Your task to perform on an android device: turn on bluetooth scan Image 0: 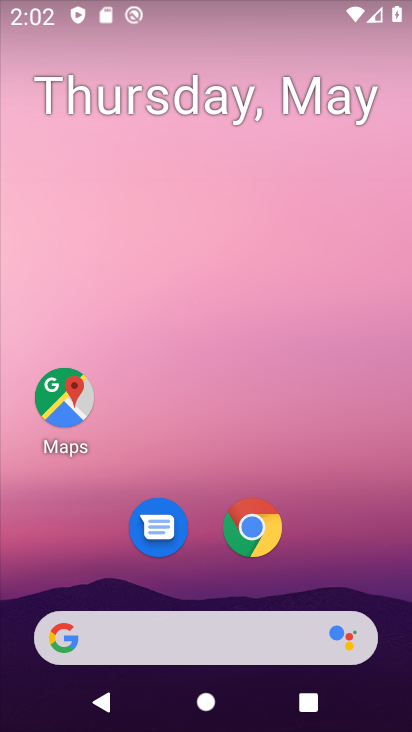
Step 0: drag from (319, 559) to (311, 121)
Your task to perform on an android device: turn on bluetooth scan Image 1: 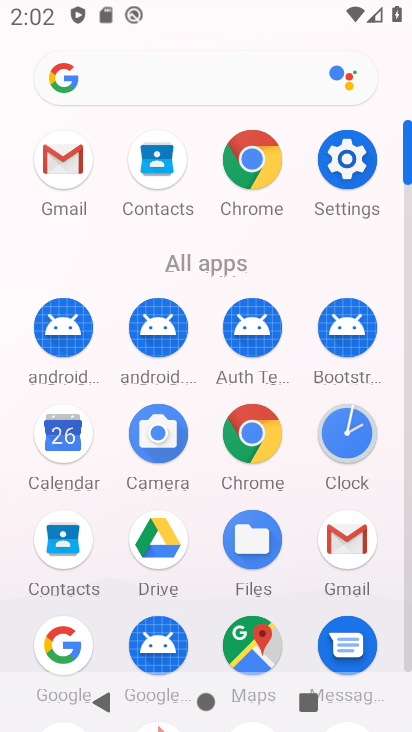
Step 1: click (335, 191)
Your task to perform on an android device: turn on bluetooth scan Image 2: 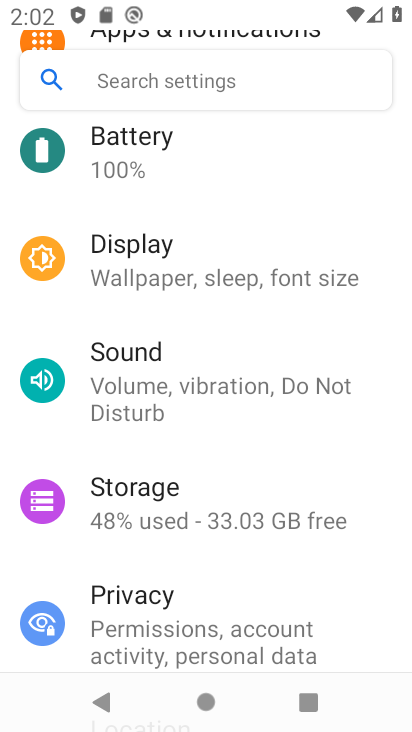
Step 2: drag from (170, 612) to (151, 235)
Your task to perform on an android device: turn on bluetooth scan Image 3: 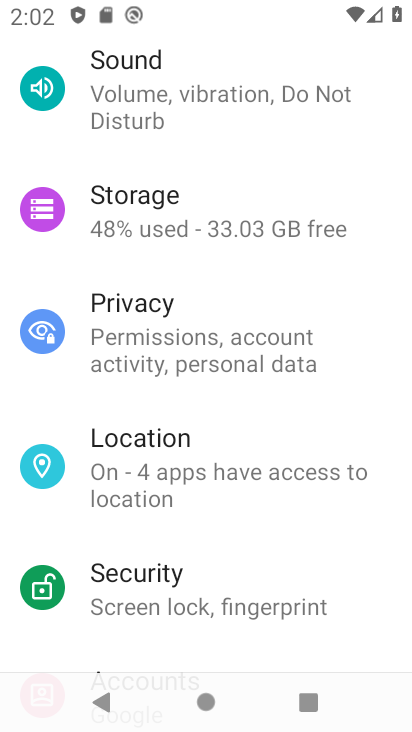
Step 3: click (133, 487)
Your task to perform on an android device: turn on bluetooth scan Image 4: 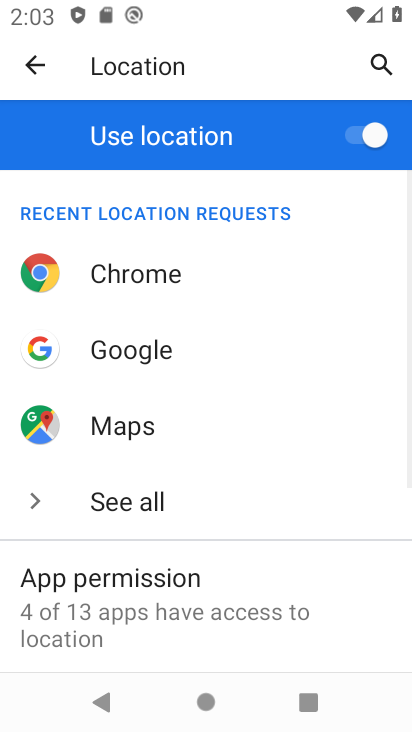
Step 4: drag from (199, 618) to (186, 256)
Your task to perform on an android device: turn on bluetooth scan Image 5: 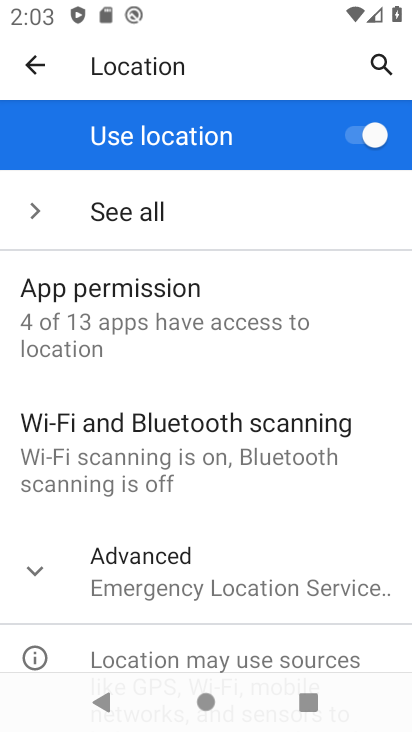
Step 5: click (143, 472)
Your task to perform on an android device: turn on bluetooth scan Image 6: 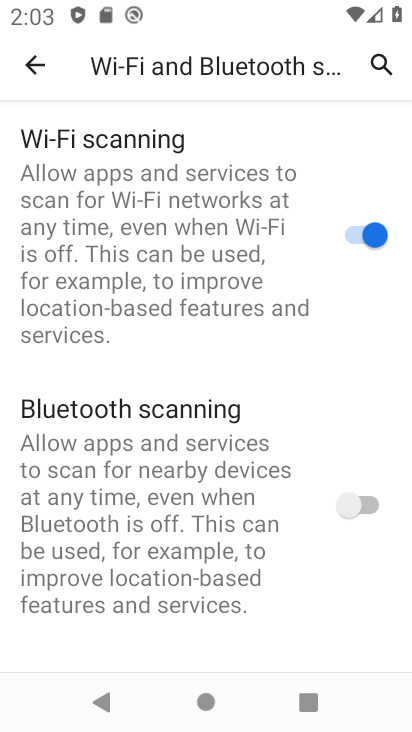
Step 6: click (206, 511)
Your task to perform on an android device: turn on bluetooth scan Image 7: 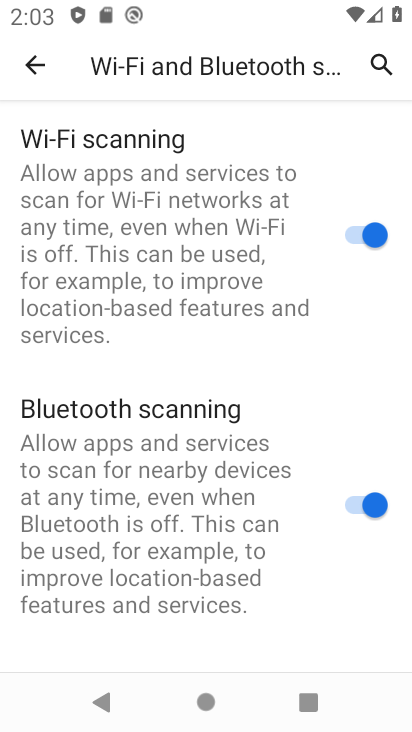
Step 7: task complete